Your task to perform on an android device: Open calendar and show me the fourth week of next month Image 0: 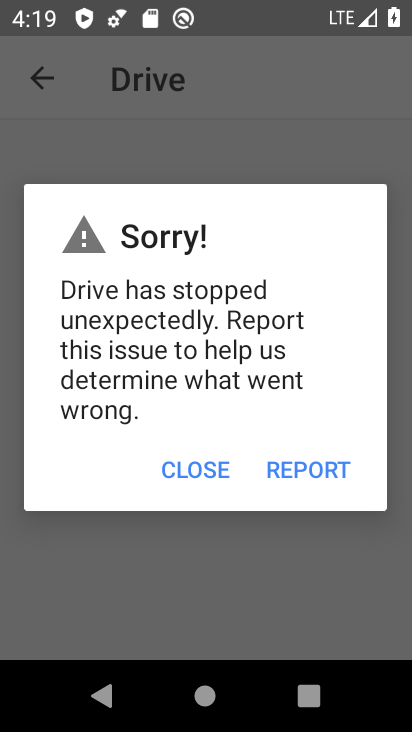
Step 0: press home button
Your task to perform on an android device: Open calendar and show me the fourth week of next month Image 1: 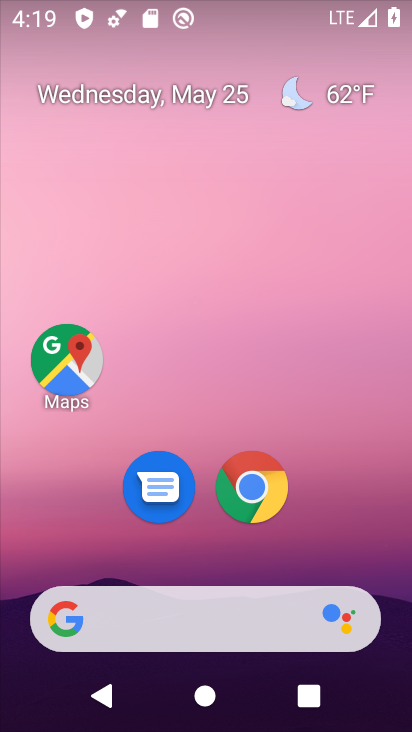
Step 1: drag from (339, 598) to (321, 10)
Your task to perform on an android device: Open calendar and show me the fourth week of next month Image 2: 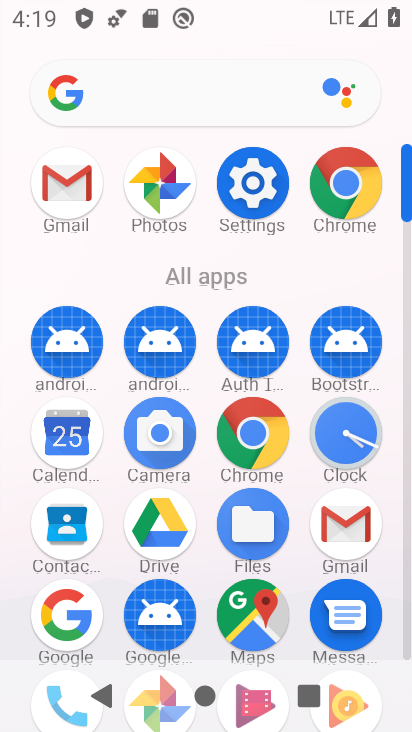
Step 2: click (67, 429)
Your task to perform on an android device: Open calendar and show me the fourth week of next month Image 3: 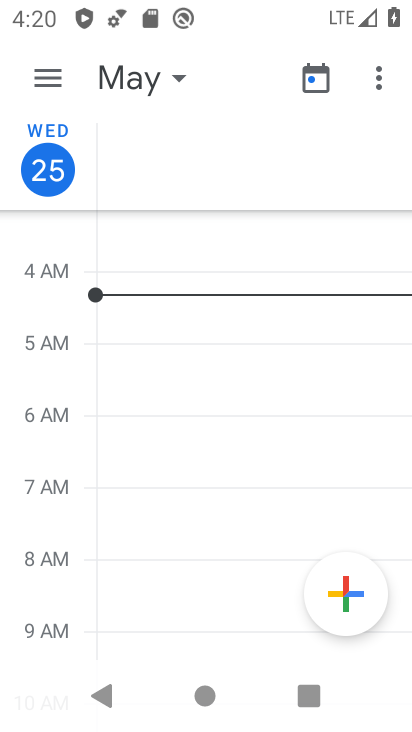
Step 3: click (55, 93)
Your task to perform on an android device: Open calendar and show me the fourth week of next month Image 4: 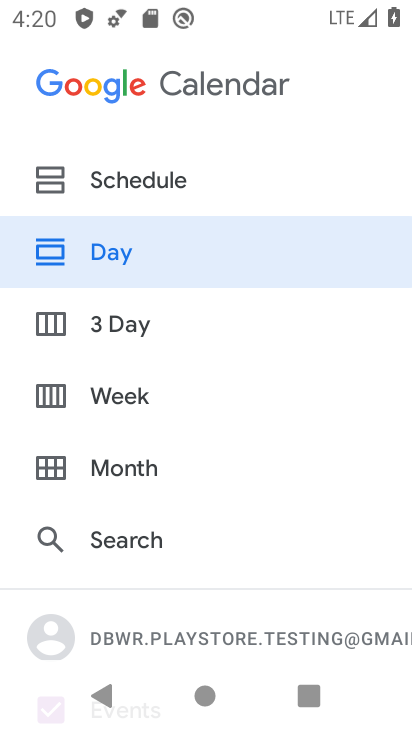
Step 4: click (150, 404)
Your task to perform on an android device: Open calendar and show me the fourth week of next month Image 5: 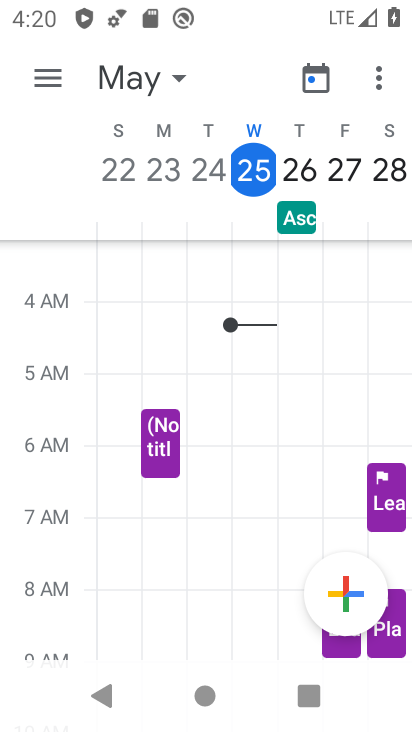
Step 5: click (151, 88)
Your task to perform on an android device: Open calendar and show me the fourth week of next month Image 6: 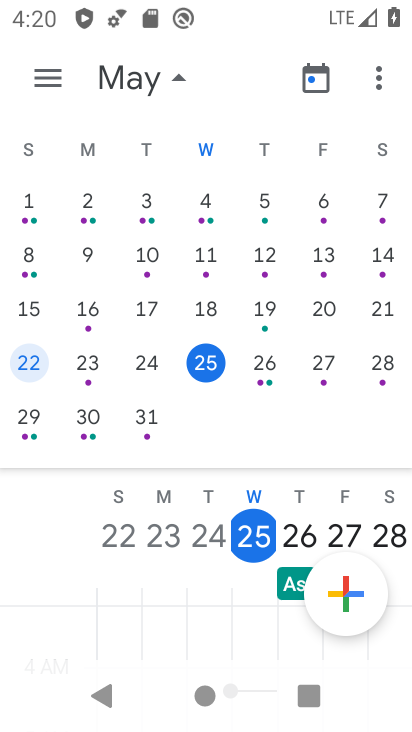
Step 6: drag from (338, 367) to (0, 343)
Your task to perform on an android device: Open calendar and show me the fourth week of next month Image 7: 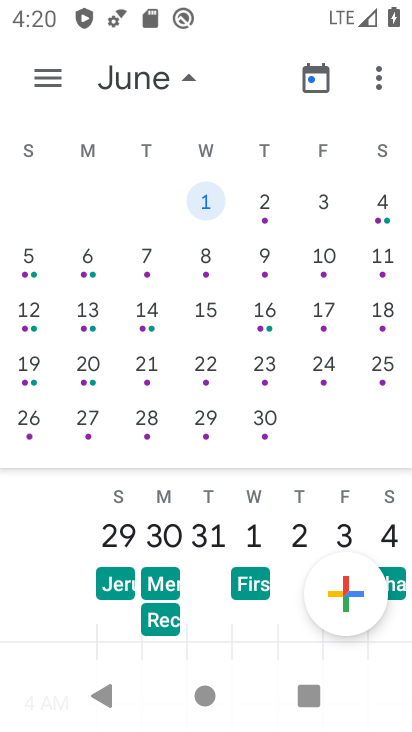
Step 7: click (90, 430)
Your task to perform on an android device: Open calendar and show me the fourth week of next month Image 8: 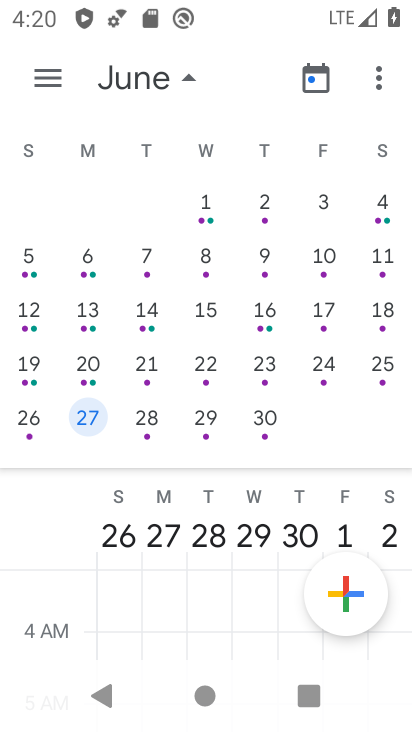
Step 8: task complete